Your task to perform on an android device: Open accessibility settings Image 0: 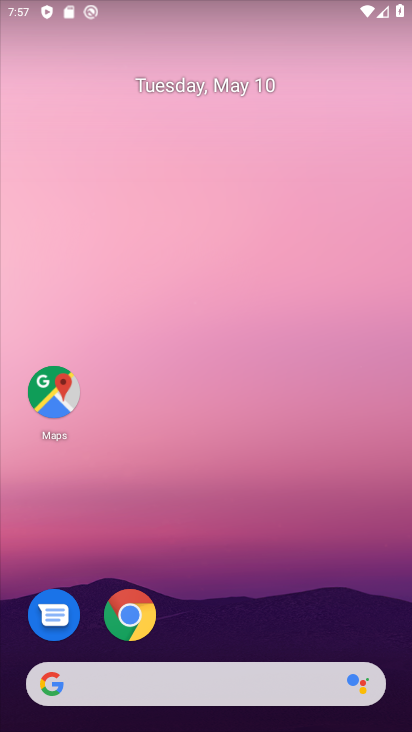
Step 0: click (247, 199)
Your task to perform on an android device: Open accessibility settings Image 1: 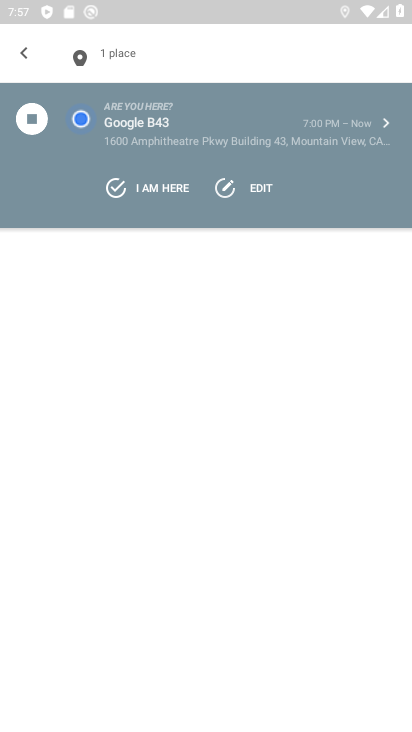
Step 1: drag from (247, 484) to (270, 218)
Your task to perform on an android device: Open accessibility settings Image 2: 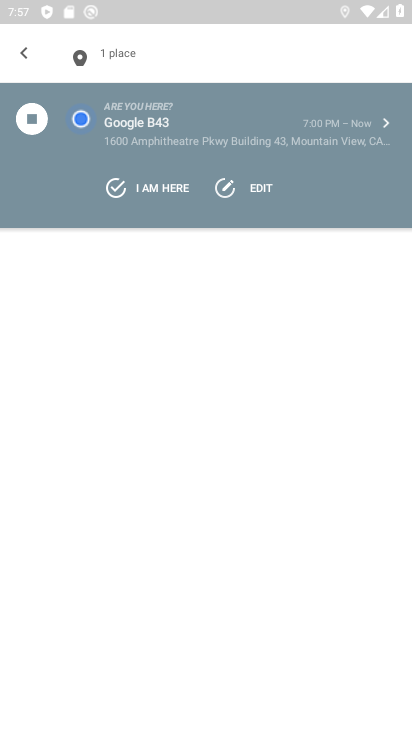
Step 2: press home button
Your task to perform on an android device: Open accessibility settings Image 3: 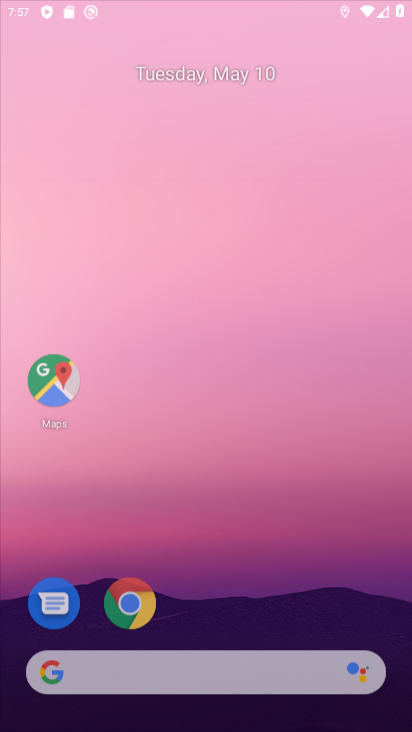
Step 3: drag from (58, 560) to (209, 25)
Your task to perform on an android device: Open accessibility settings Image 4: 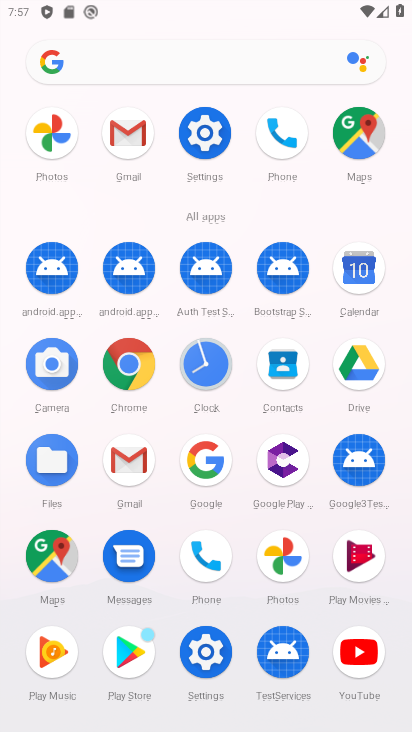
Step 4: click (199, 144)
Your task to perform on an android device: Open accessibility settings Image 5: 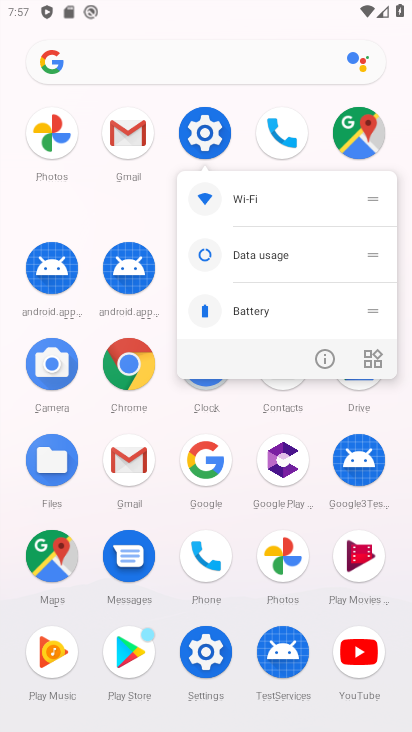
Step 5: click (326, 357)
Your task to perform on an android device: Open accessibility settings Image 6: 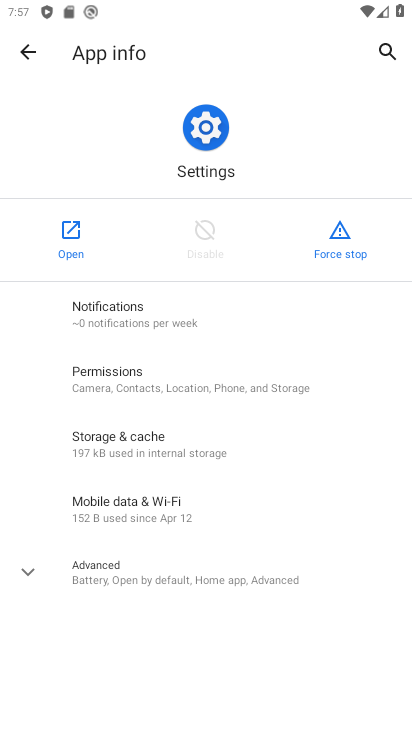
Step 6: click (77, 259)
Your task to perform on an android device: Open accessibility settings Image 7: 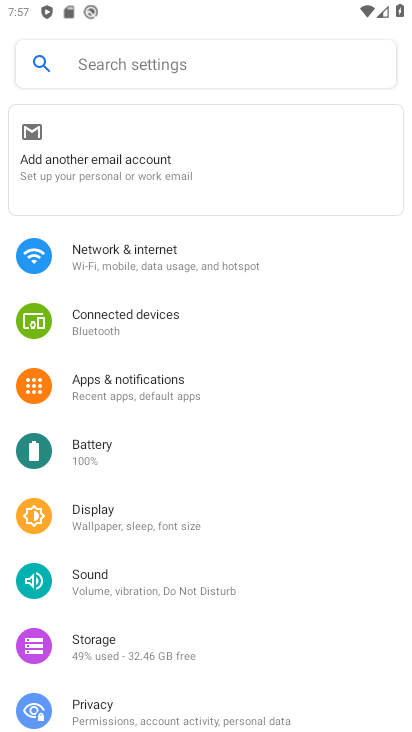
Step 7: drag from (229, 609) to (316, 92)
Your task to perform on an android device: Open accessibility settings Image 8: 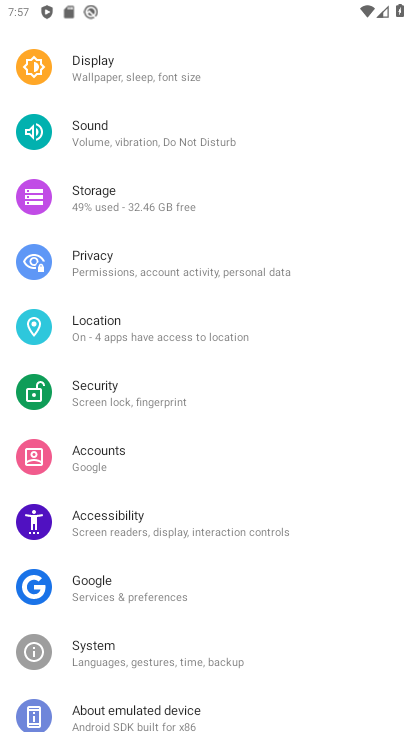
Step 8: click (140, 522)
Your task to perform on an android device: Open accessibility settings Image 9: 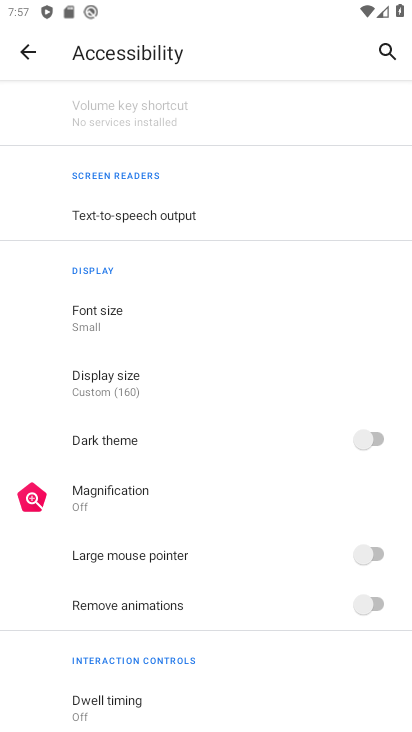
Step 9: task complete